Your task to perform on an android device: open wifi settings Image 0: 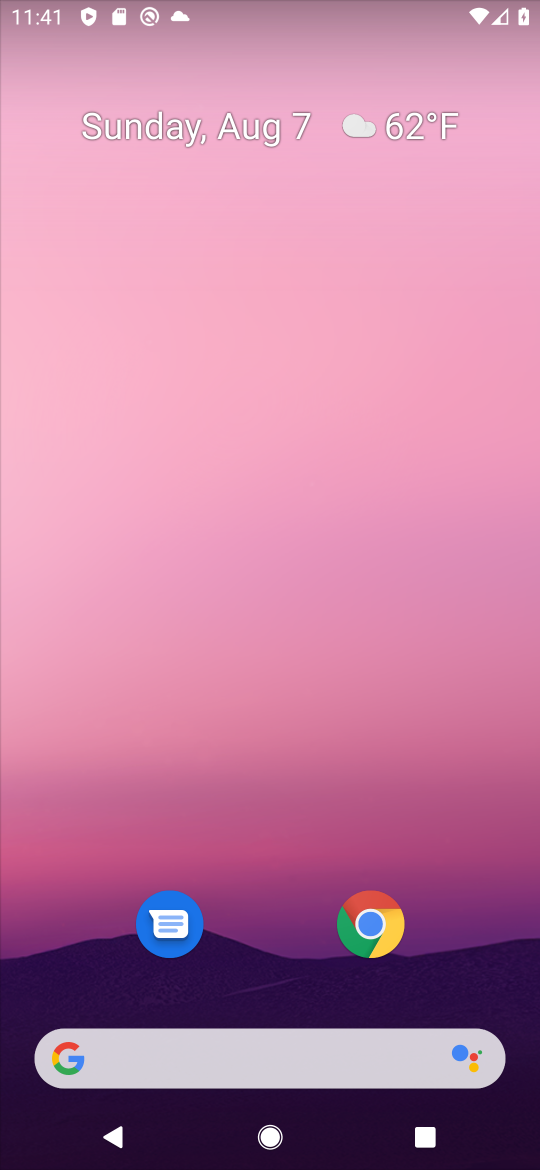
Step 0: drag from (268, 1050) to (288, 168)
Your task to perform on an android device: open wifi settings Image 1: 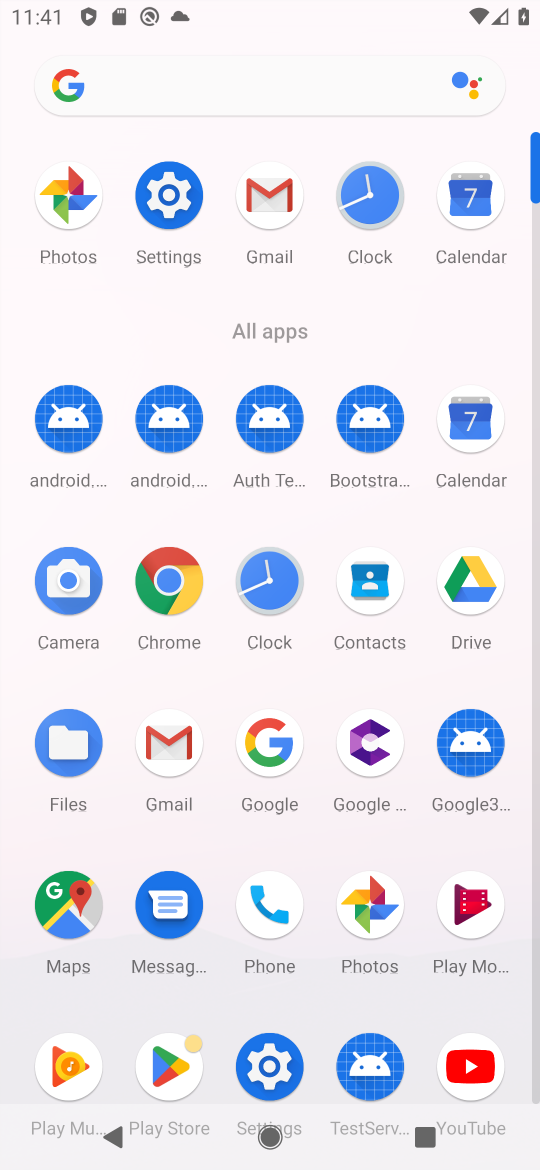
Step 1: click (285, 1067)
Your task to perform on an android device: open wifi settings Image 2: 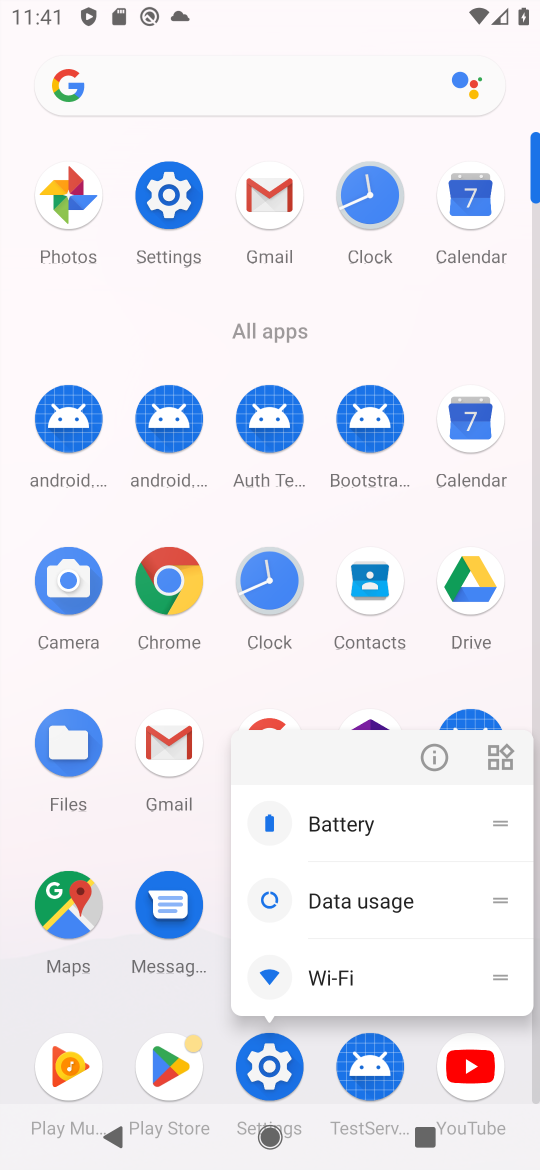
Step 2: click (278, 1074)
Your task to perform on an android device: open wifi settings Image 3: 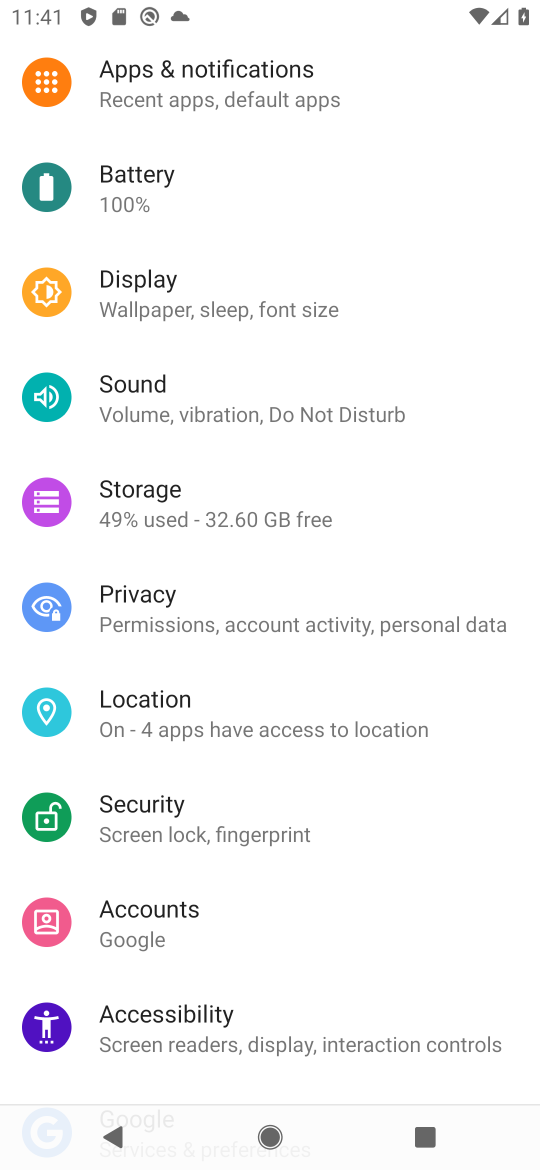
Step 3: drag from (197, 203) to (280, 849)
Your task to perform on an android device: open wifi settings Image 4: 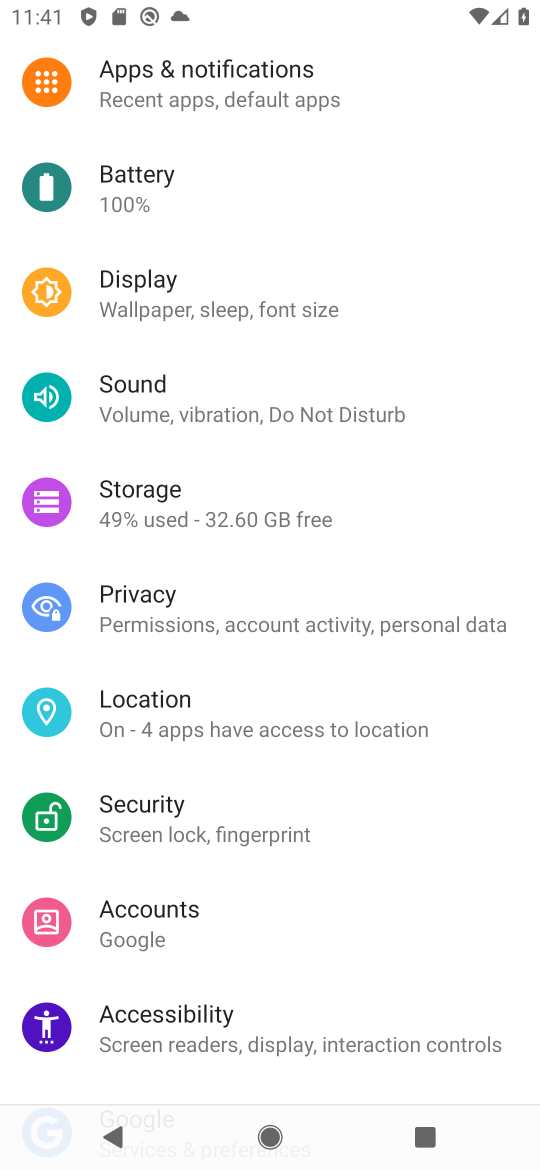
Step 4: drag from (132, 76) to (131, 734)
Your task to perform on an android device: open wifi settings Image 5: 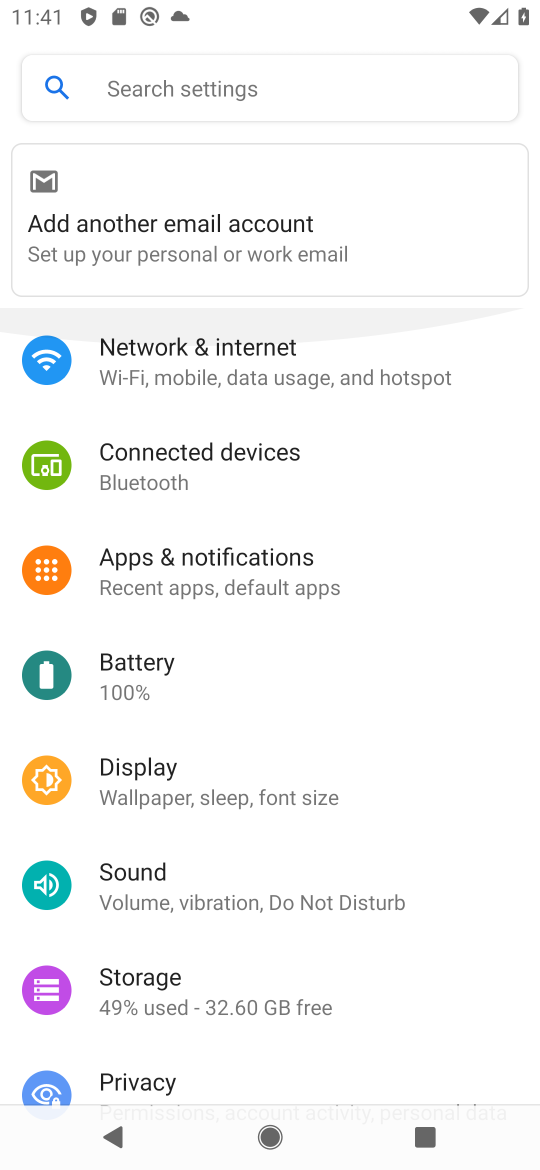
Step 5: drag from (332, 54) to (217, 824)
Your task to perform on an android device: open wifi settings Image 6: 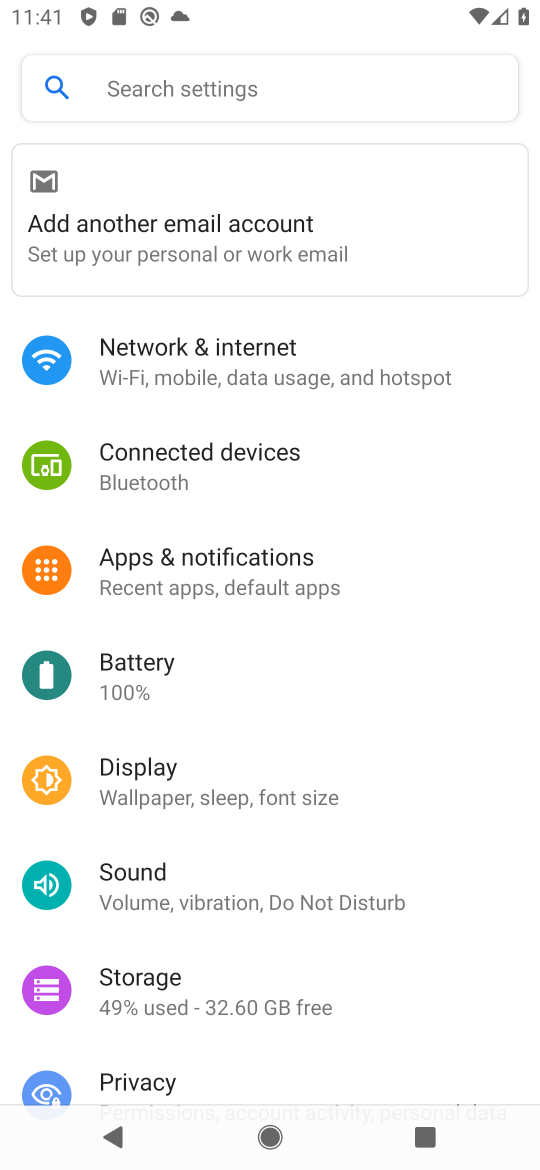
Step 6: click (181, 361)
Your task to perform on an android device: open wifi settings Image 7: 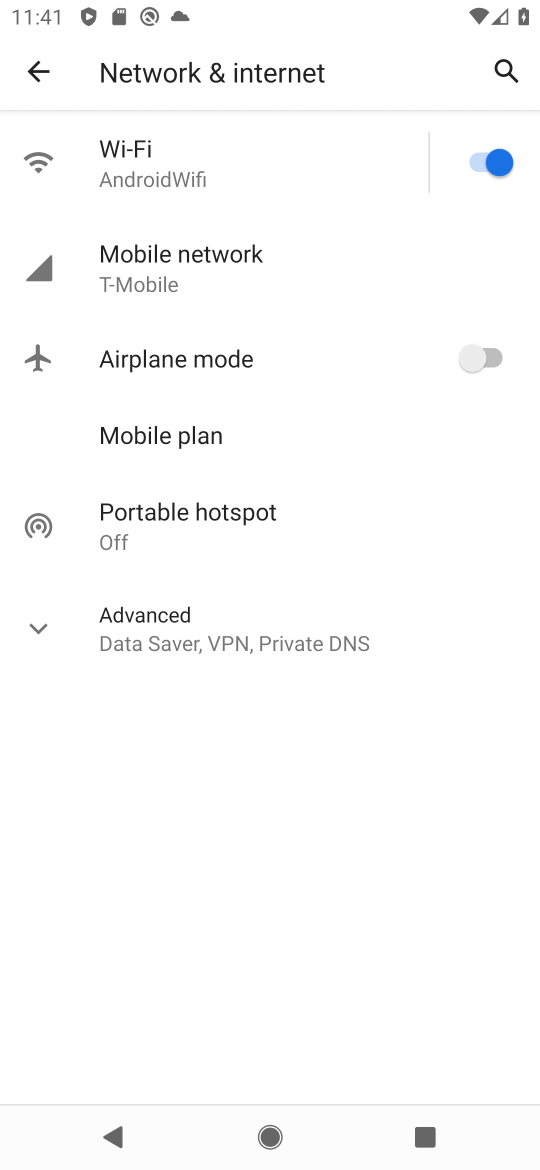
Step 7: click (159, 158)
Your task to perform on an android device: open wifi settings Image 8: 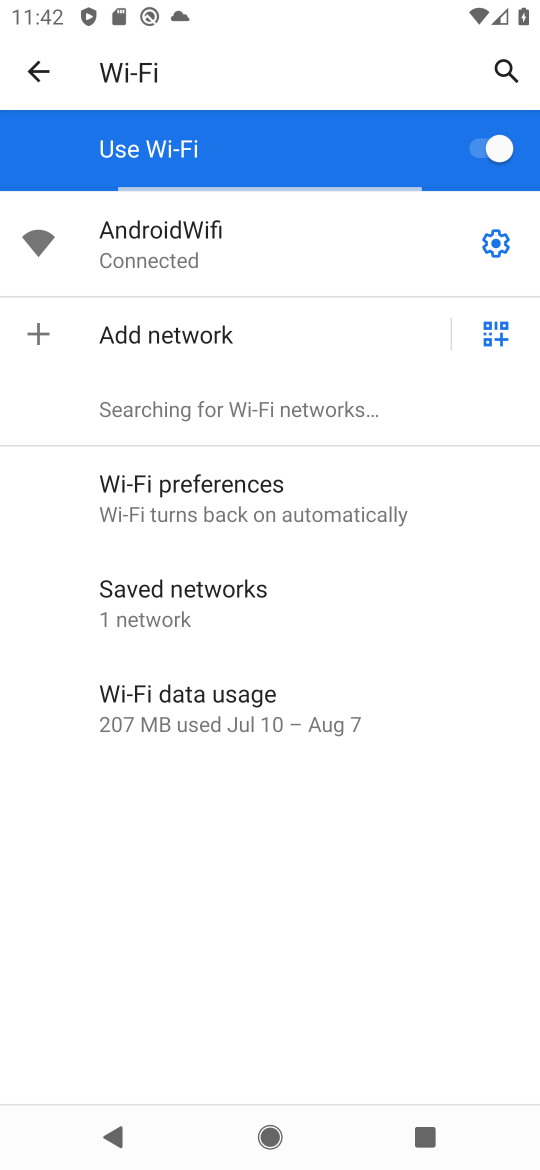
Step 8: click (493, 238)
Your task to perform on an android device: open wifi settings Image 9: 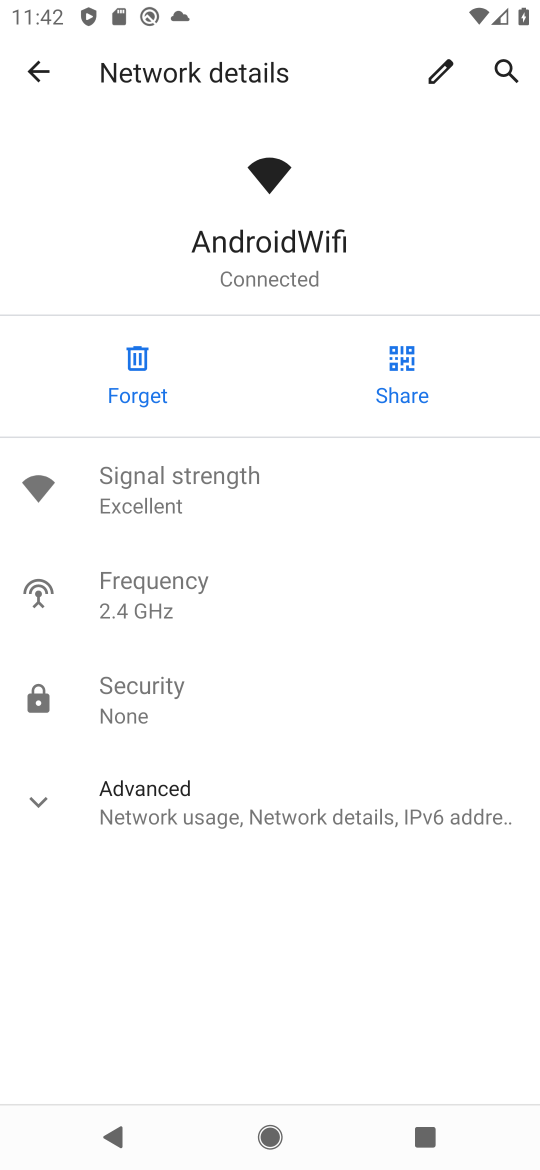
Step 9: click (131, 819)
Your task to perform on an android device: open wifi settings Image 10: 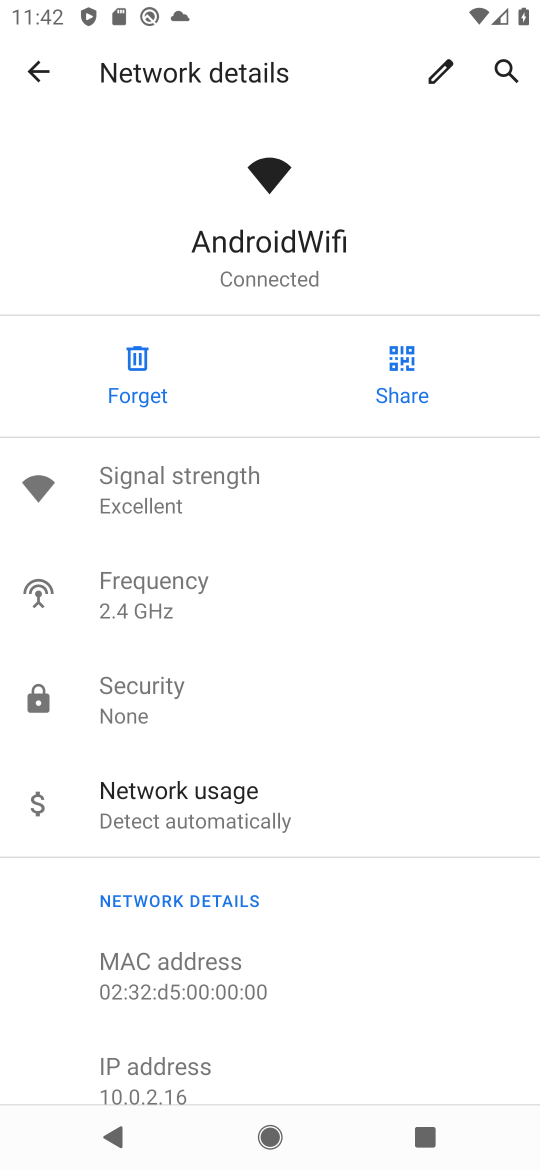
Step 10: task complete